Your task to perform on an android device: turn on location history Image 0: 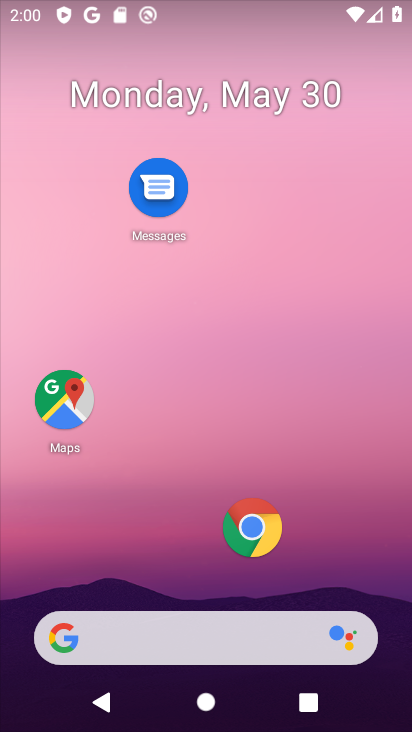
Step 0: drag from (198, 553) to (241, 139)
Your task to perform on an android device: turn on location history Image 1: 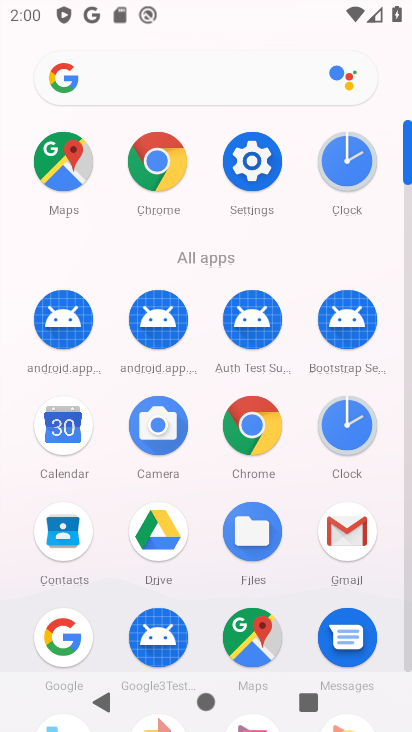
Step 1: click (270, 437)
Your task to perform on an android device: turn on location history Image 2: 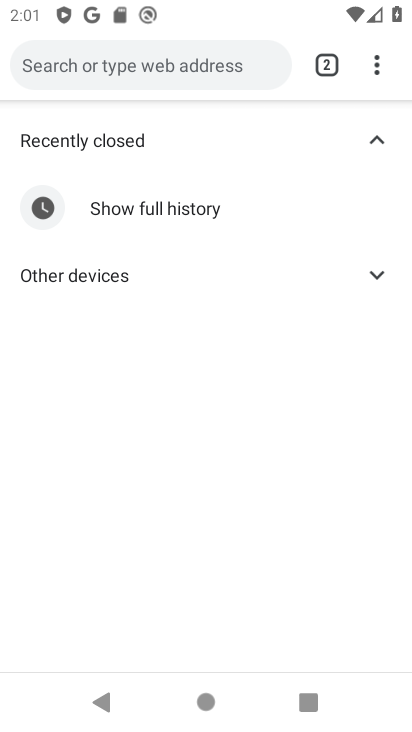
Step 2: click (377, 79)
Your task to perform on an android device: turn on location history Image 3: 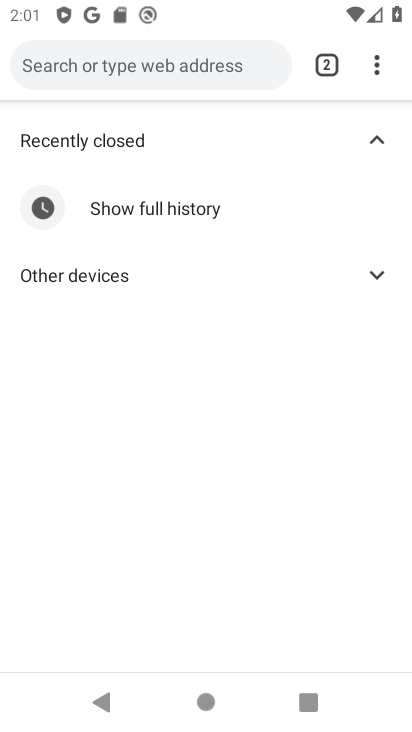
Step 3: press home button
Your task to perform on an android device: turn on location history Image 4: 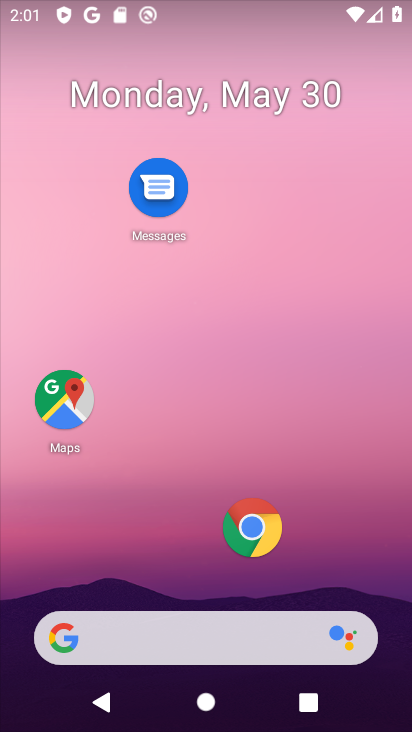
Step 4: drag from (194, 519) to (244, 92)
Your task to perform on an android device: turn on location history Image 5: 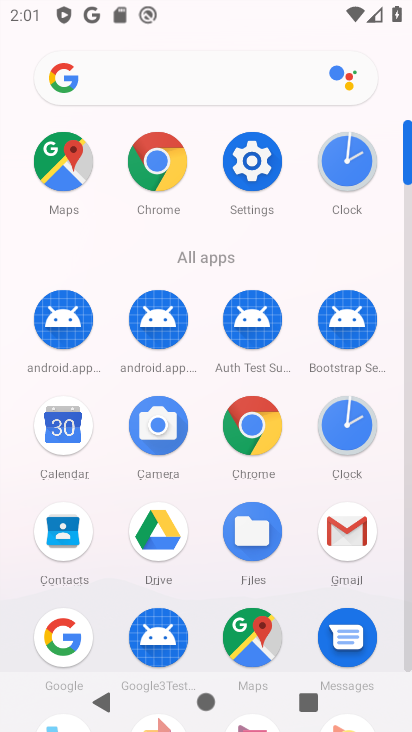
Step 5: drag from (205, 267) to (204, 131)
Your task to perform on an android device: turn on location history Image 6: 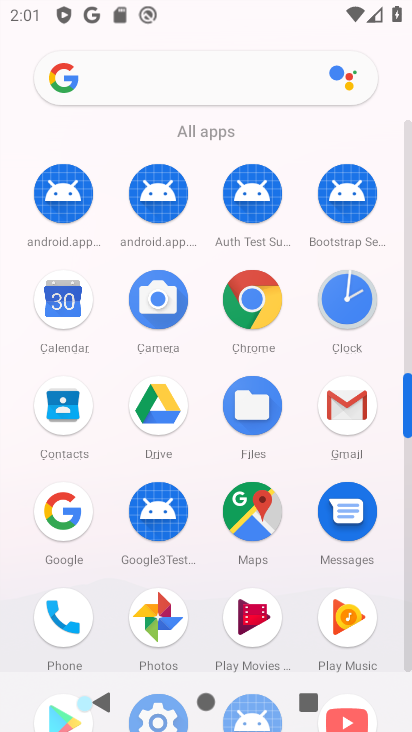
Step 6: drag from (196, 238) to (198, 73)
Your task to perform on an android device: turn on location history Image 7: 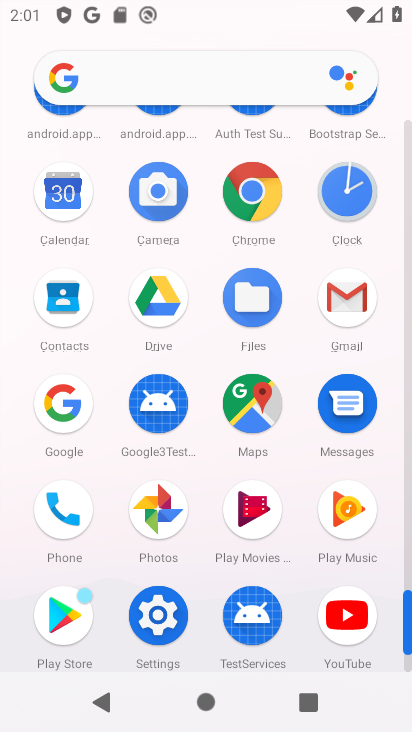
Step 7: click (158, 618)
Your task to perform on an android device: turn on location history Image 8: 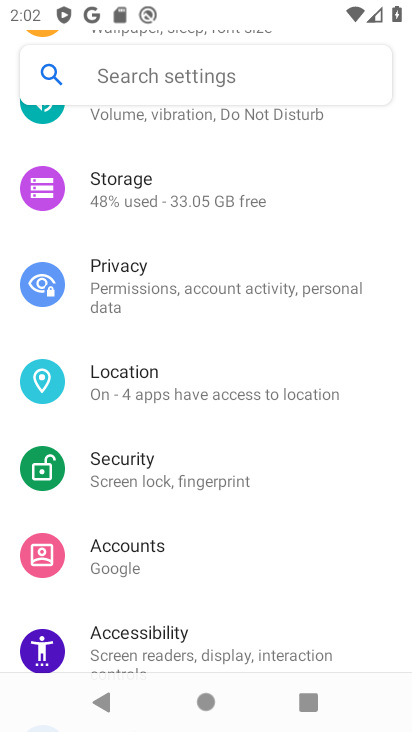
Step 8: click (150, 400)
Your task to perform on an android device: turn on location history Image 9: 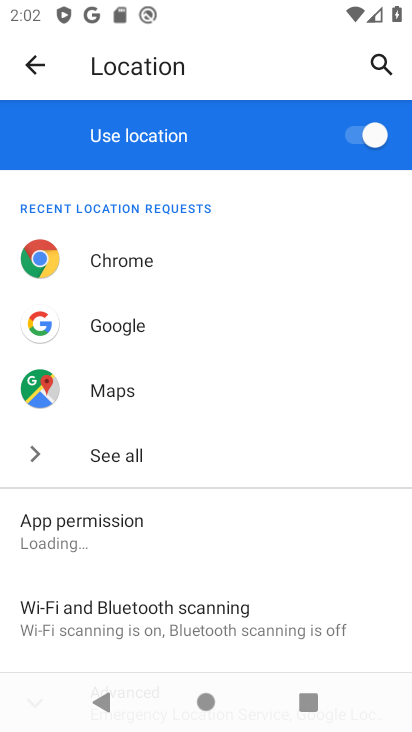
Step 9: drag from (247, 570) to (214, 240)
Your task to perform on an android device: turn on location history Image 10: 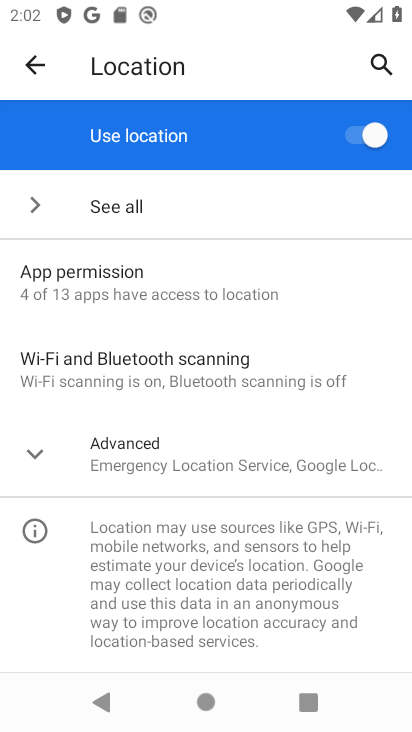
Step 10: click (204, 455)
Your task to perform on an android device: turn on location history Image 11: 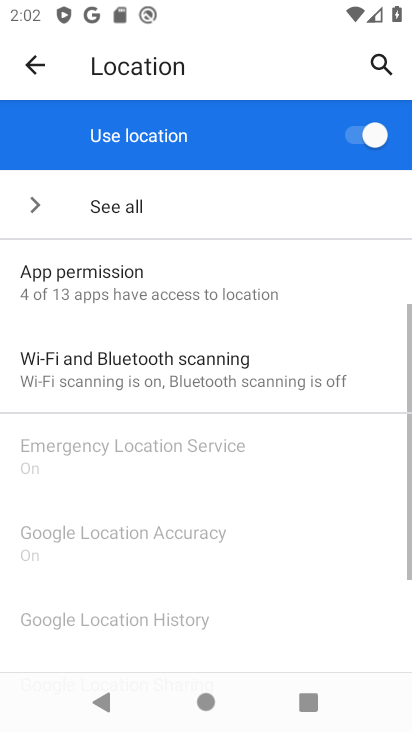
Step 11: task complete